Your task to perform on an android device: change the clock display to show seconds Image 0: 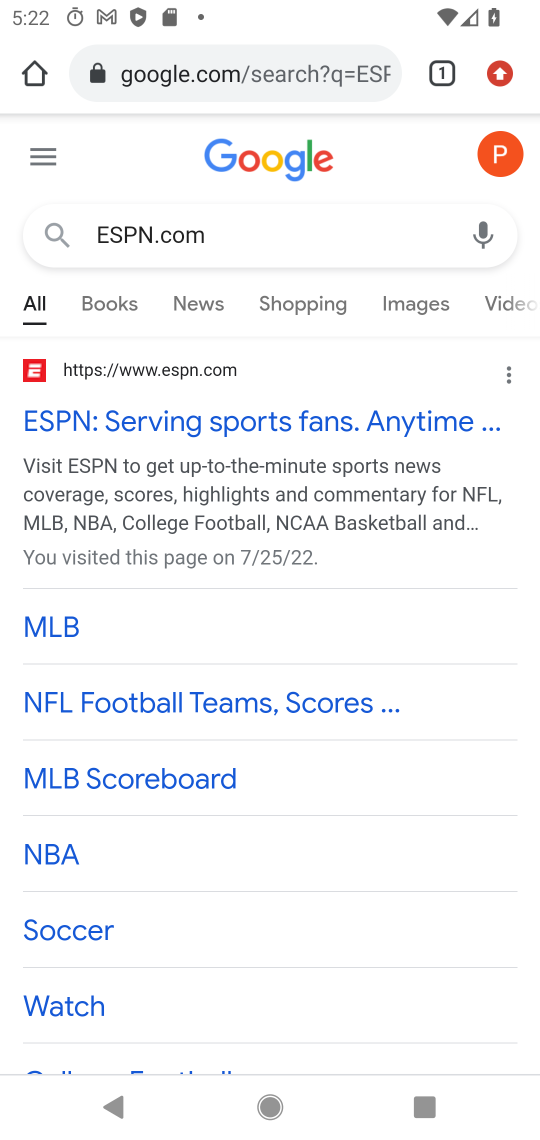
Step 0: press home button
Your task to perform on an android device: change the clock display to show seconds Image 1: 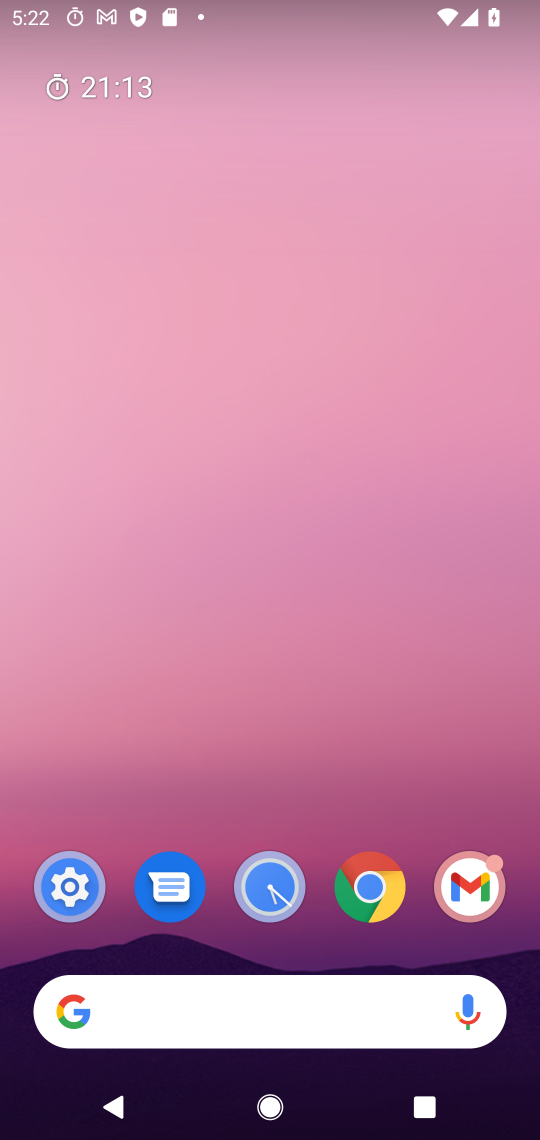
Step 1: click (266, 882)
Your task to perform on an android device: change the clock display to show seconds Image 2: 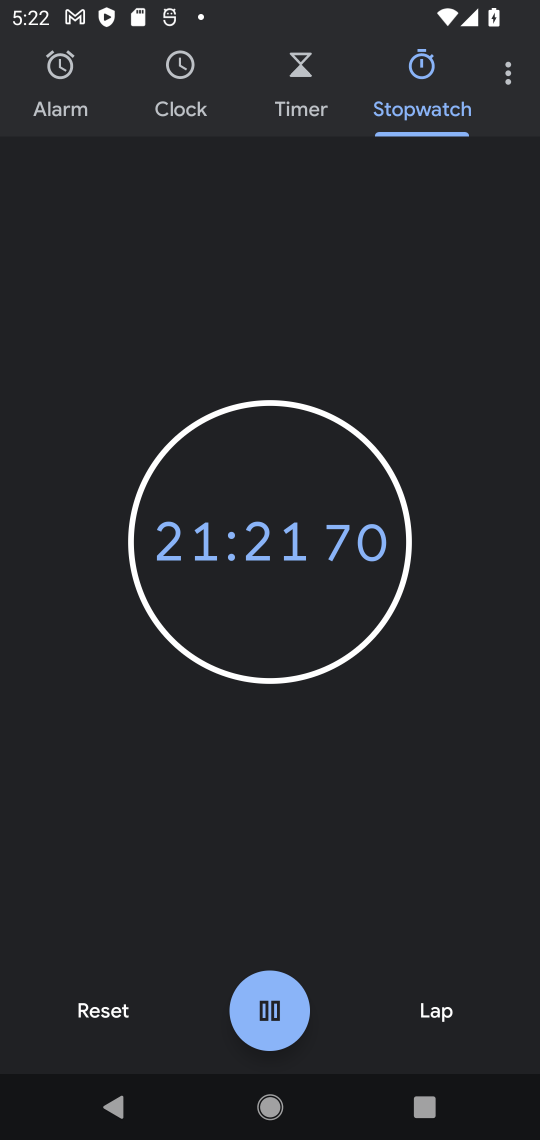
Step 2: click (505, 74)
Your task to perform on an android device: change the clock display to show seconds Image 3: 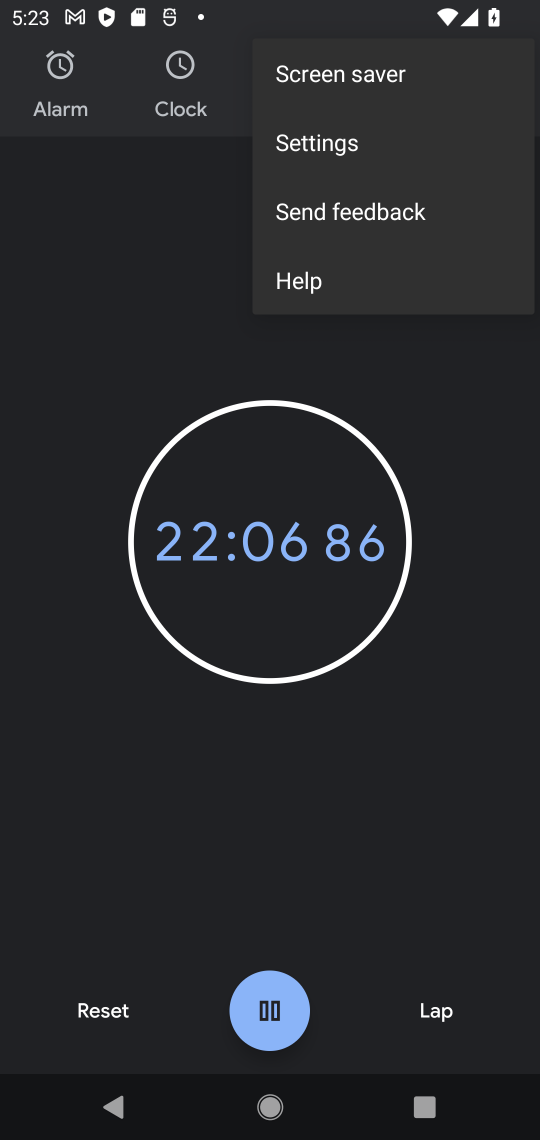
Step 3: click (315, 137)
Your task to perform on an android device: change the clock display to show seconds Image 4: 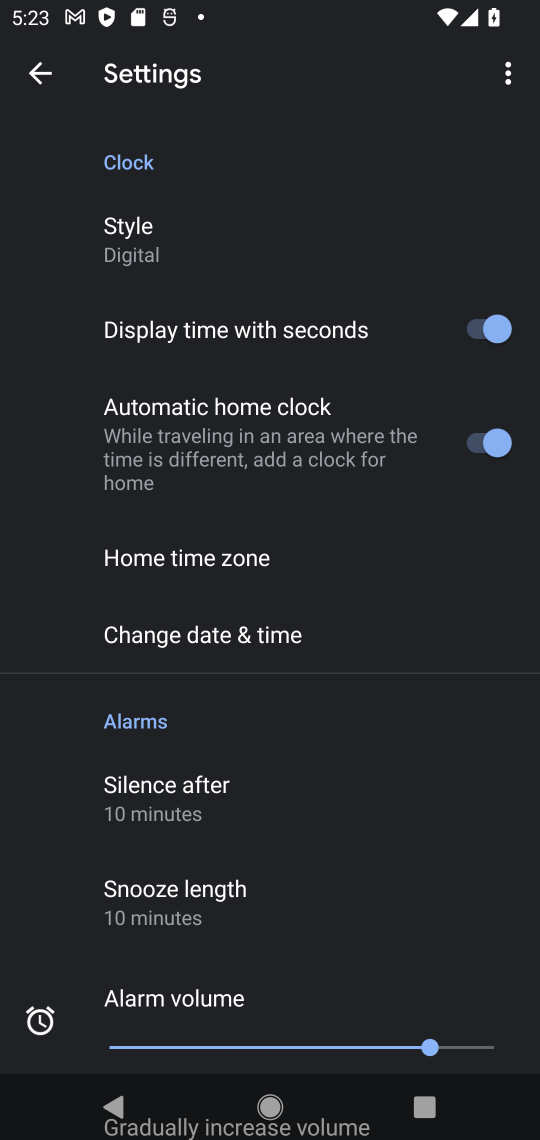
Step 4: task complete